Your task to perform on an android device: turn off airplane mode Image 0: 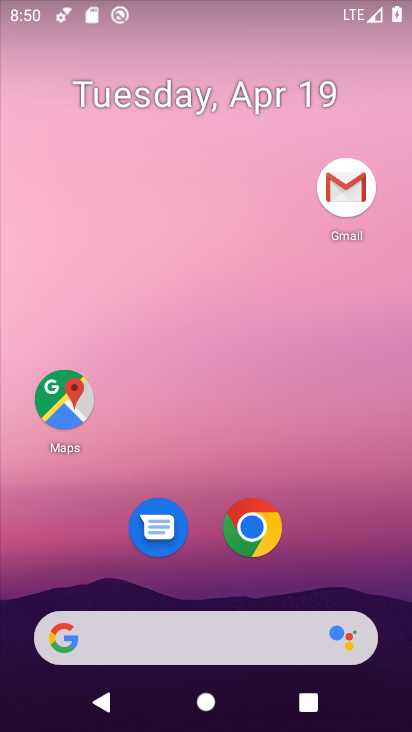
Step 0: drag from (354, 512) to (354, 76)
Your task to perform on an android device: turn off airplane mode Image 1: 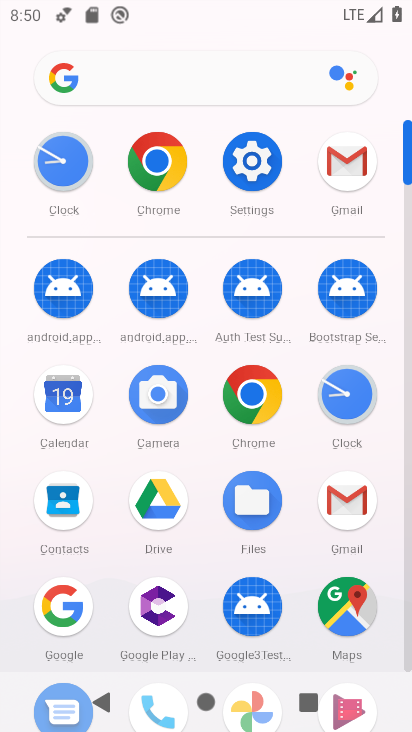
Step 1: click (269, 175)
Your task to perform on an android device: turn off airplane mode Image 2: 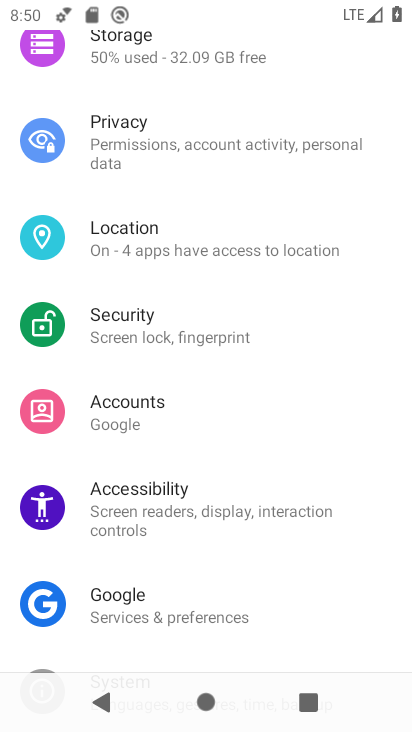
Step 2: drag from (352, 291) to (367, 501)
Your task to perform on an android device: turn off airplane mode Image 3: 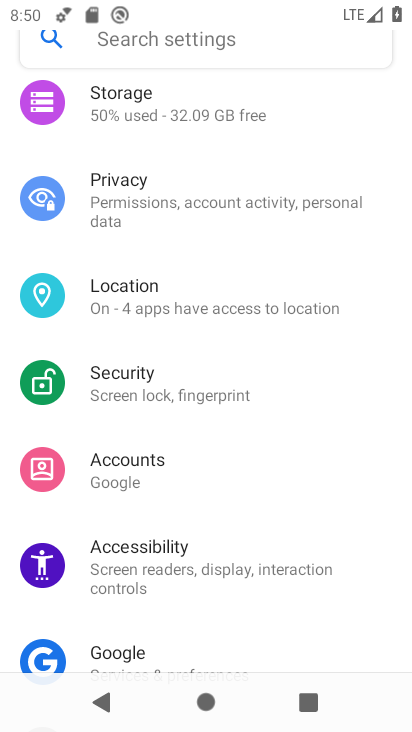
Step 3: drag from (360, 155) to (351, 548)
Your task to perform on an android device: turn off airplane mode Image 4: 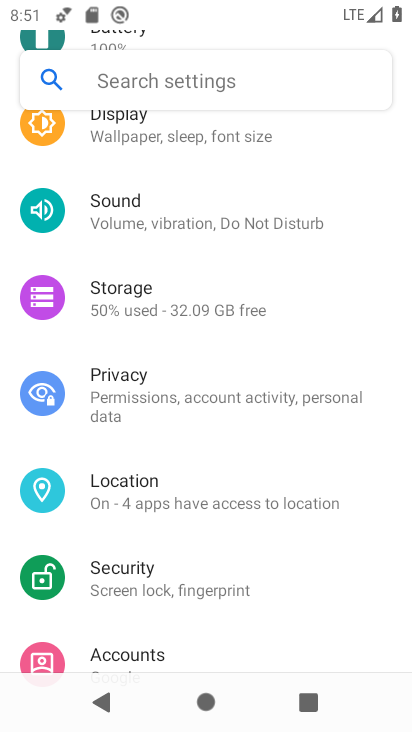
Step 4: drag from (335, 172) to (332, 544)
Your task to perform on an android device: turn off airplane mode Image 5: 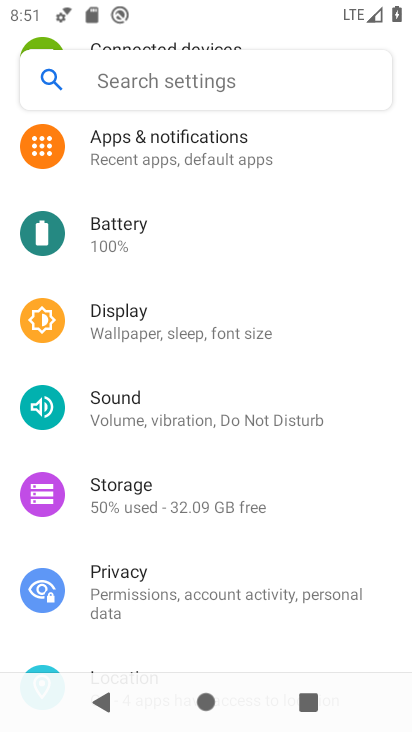
Step 5: drag from (346, 252) to (349, 549)
Your task to perform on an android device: turn off airplane mode Image 6: 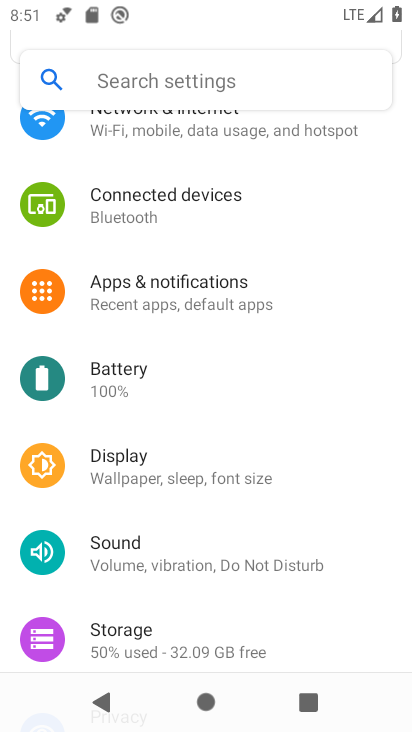
Step 6: drag from (343, 221) to (349, 589)
Your task to perform on an android device: turn off airplane mode Image 7: 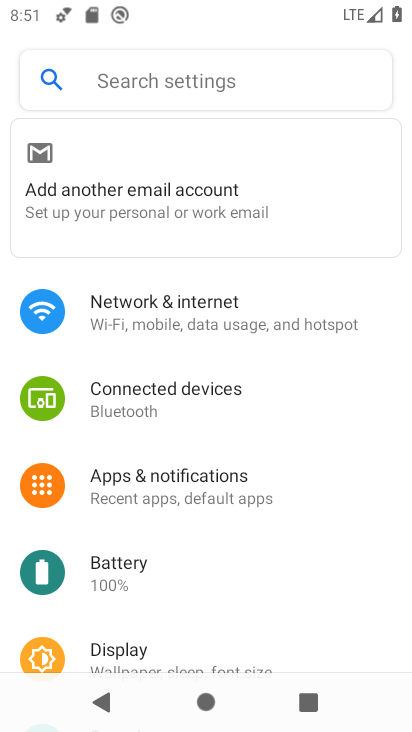
Step 7: click (310, 303)
Your task to perform on an android device: turn off airplane mode Image 8: 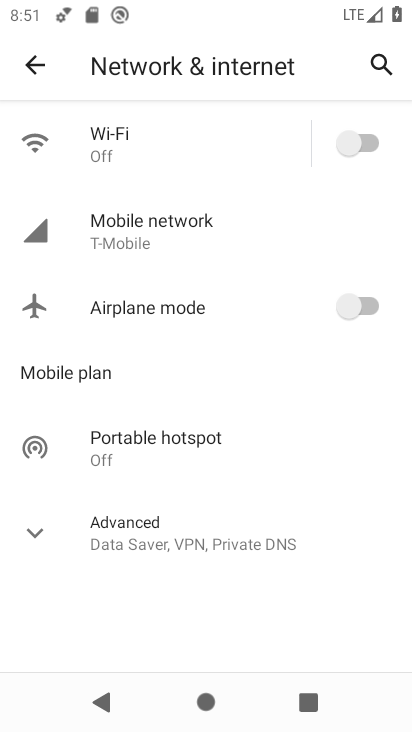
Step 8: task complete